Your task to perform on an android device: Open Youtube and go to the subscriptions tab Image 0: 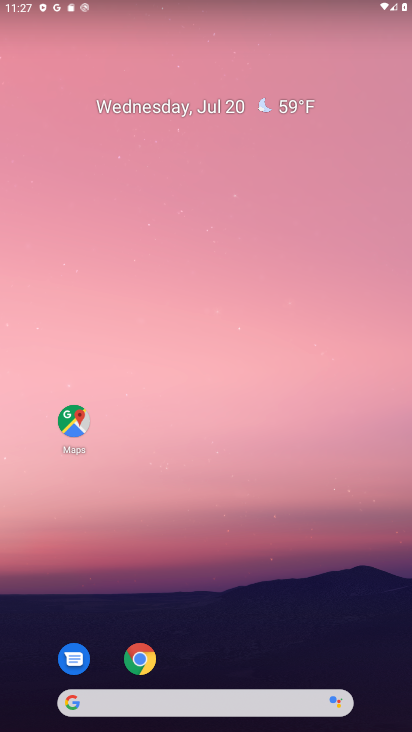
Step 0: drag from (22, 706) to (219, 77)
Your task to perform on an android device: Open Youtube and go to the subscriptions tab Image 1: 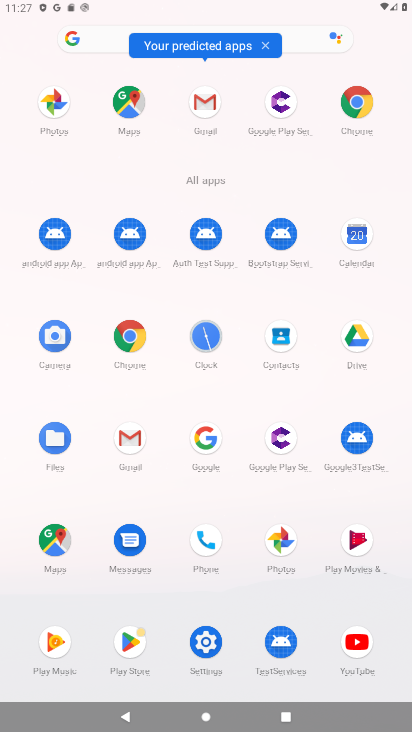
Step 1: click (358, 639)
Your task to perform on an android device: Open Youtube and go to the subscriptions tab Image 2: 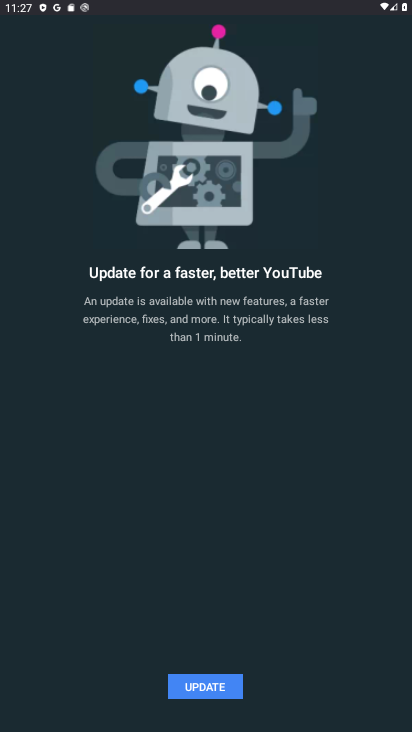
Step 2: task complete